Your task to perform on an android device: Open Google Chrome and open the bookmarks view Image 0: 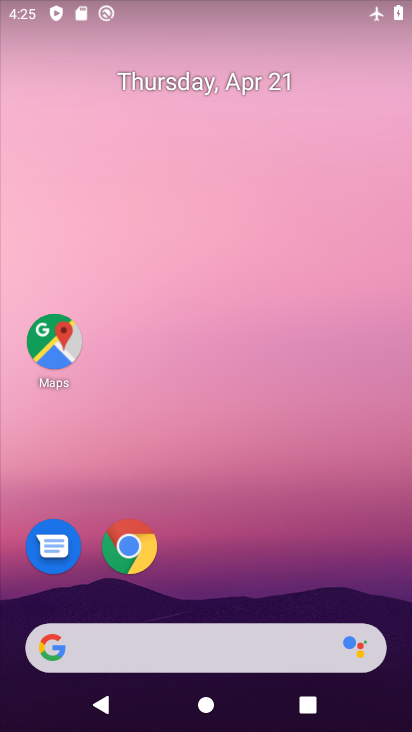
Step 0: click (143, 557)
Your task to perform on an android device: Open Google Chrome and open the bookmarks view Image 1: 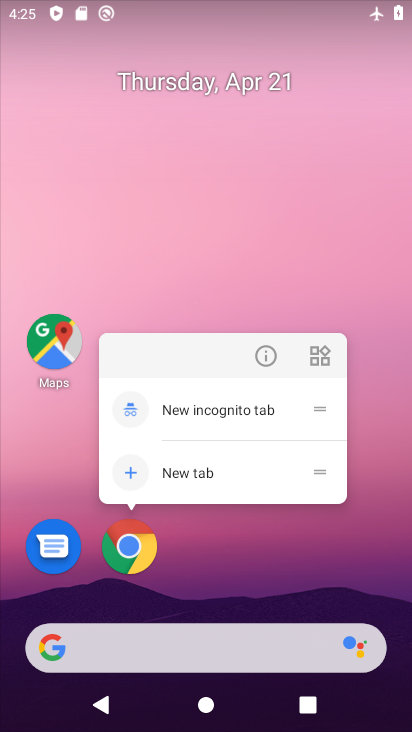
Step 1: click (144, 556)
Your task to perform on an android device: Open Google Chrome and open the bookmarks view Image 2: 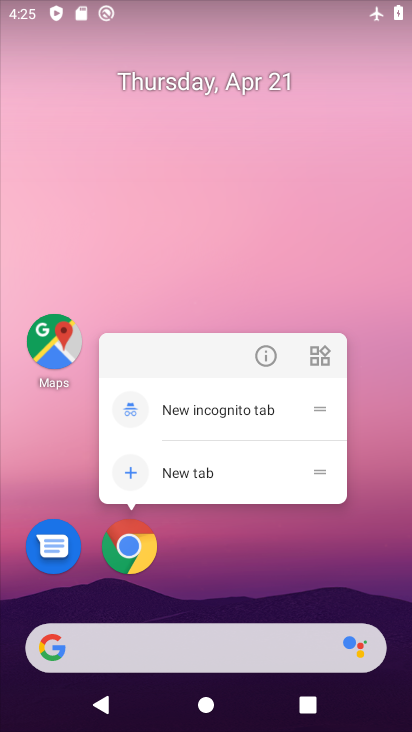
Step 2: click (144, 556)
Your task to perform on an android device: Open Google Chrome and open the bookmarks view Image 3: 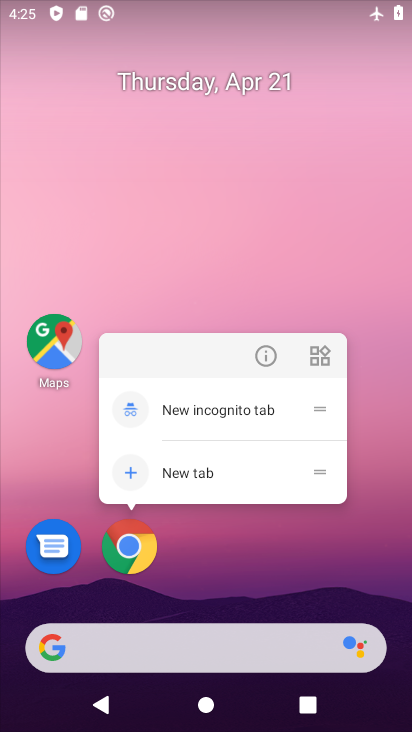
Step 3: click (132, 539)
Your task to perform on an android device: Open Google Chrome and open the bookmarks view Image 4: 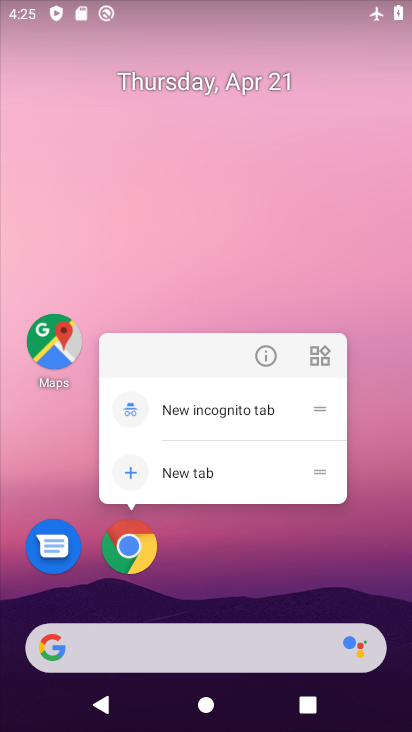
Step 4: click (132, 539)
Your task to perform on an android device: Open Google Chrome and open the bookmarks view Image 5: 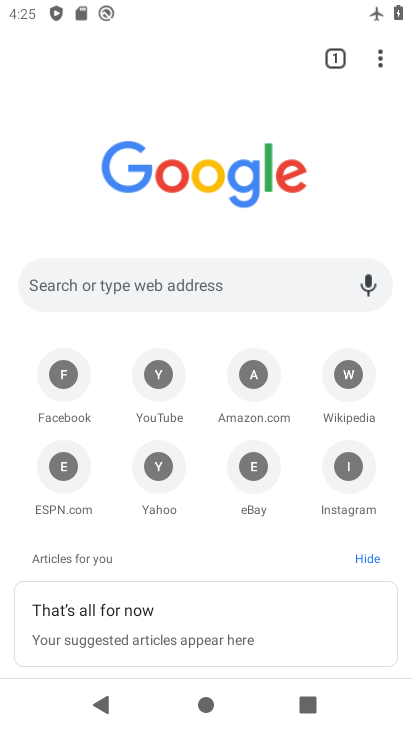
Step 5: click (380, 60)
Your task to perform on an android device: Open Google Chrome and open the bookmarks view Image 6: 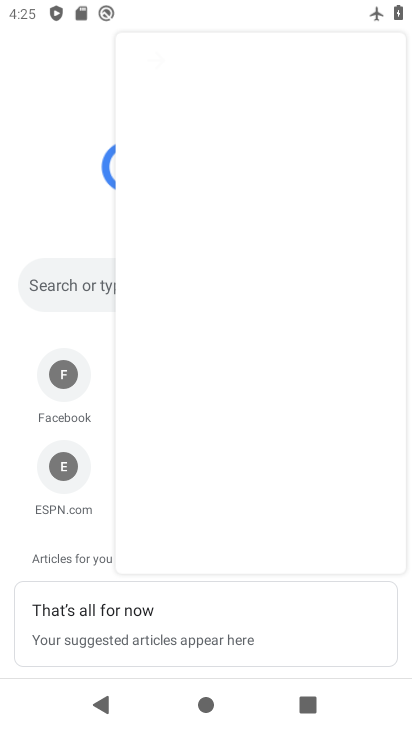
Step 6: click (380, 60)
Your task to perform on an android device: Open Google Chrome and open the bookmarks view Image 7: 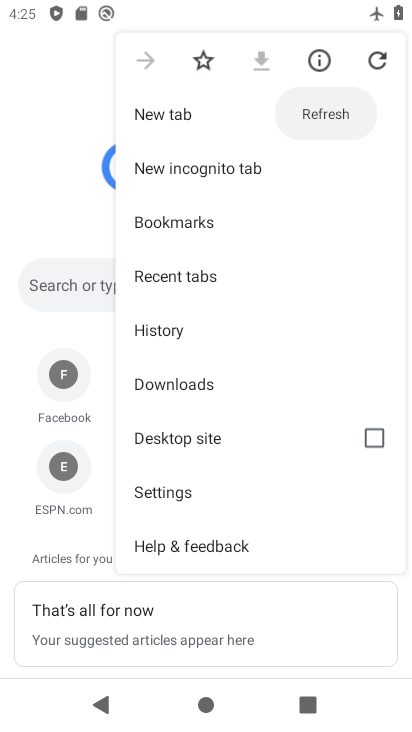
Step 7: click (243, 217)
Your task to perform on an android device: Open Google Chrome and open the bookmarks view Image 8: 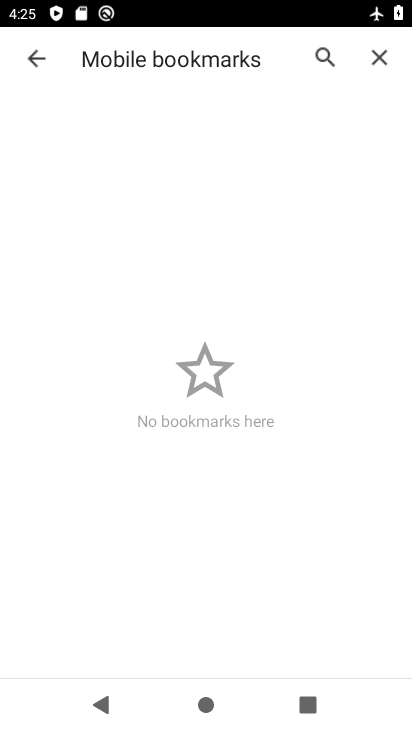
Step 8: task complete